Your task to perform on an android device: Show me recent news Image 0: 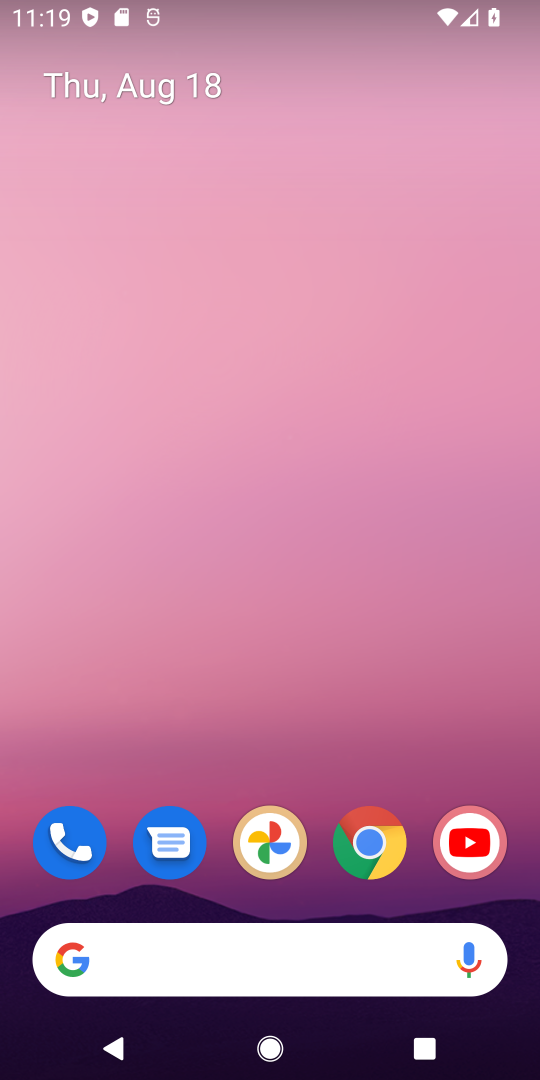
Step 0: click (137, 964)
Your task to perform on an android device: Show me recent news Image 1: 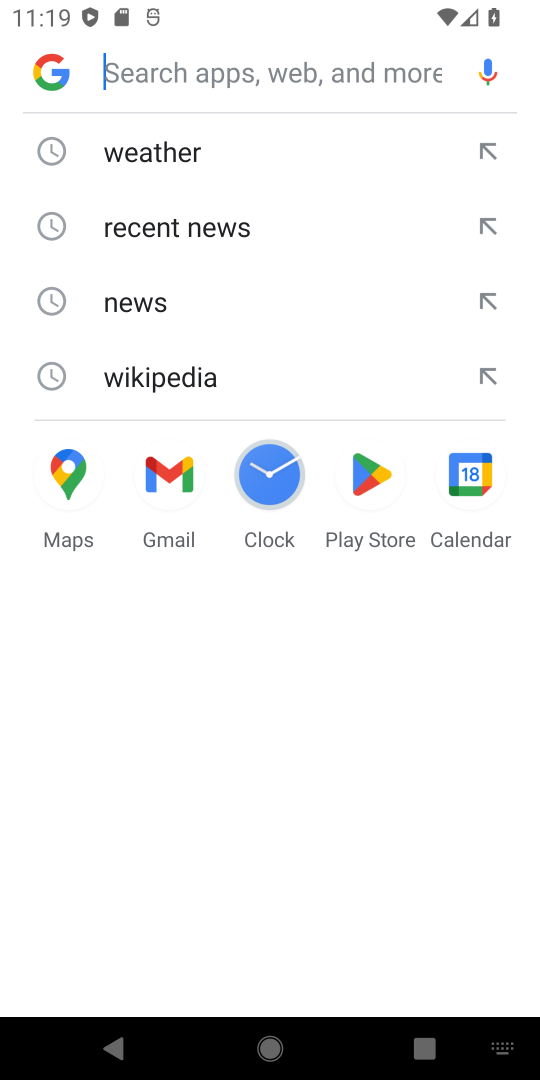
Step 1: click (64, 82)
Your task to perform on an android device: Show me recent news Image 2: 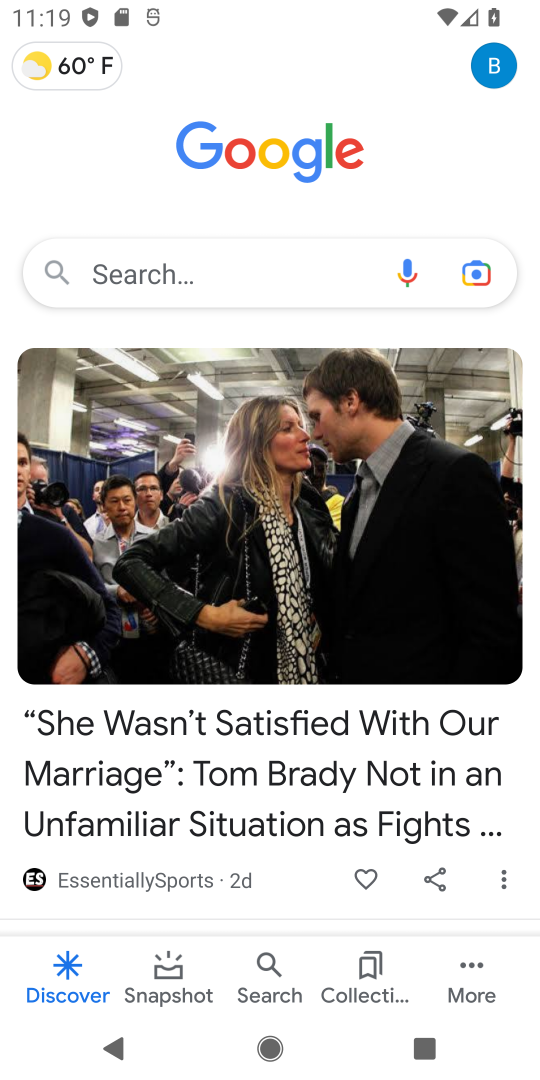
Step 2: task complete